Your task to perform on an android device: Open CNN.com Image 0: 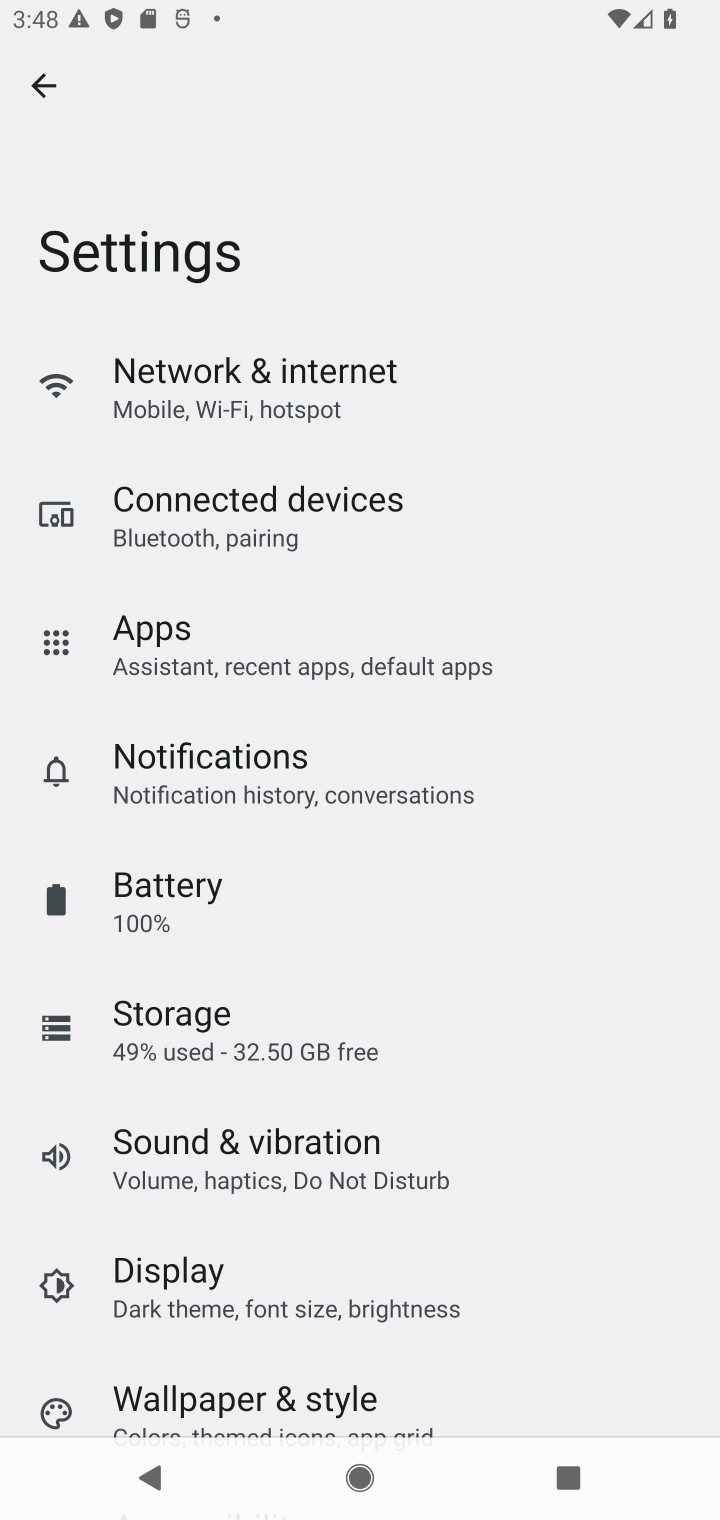
Step 0: press home button
Your task to perform on an android device: Open CNN.com Image 1: 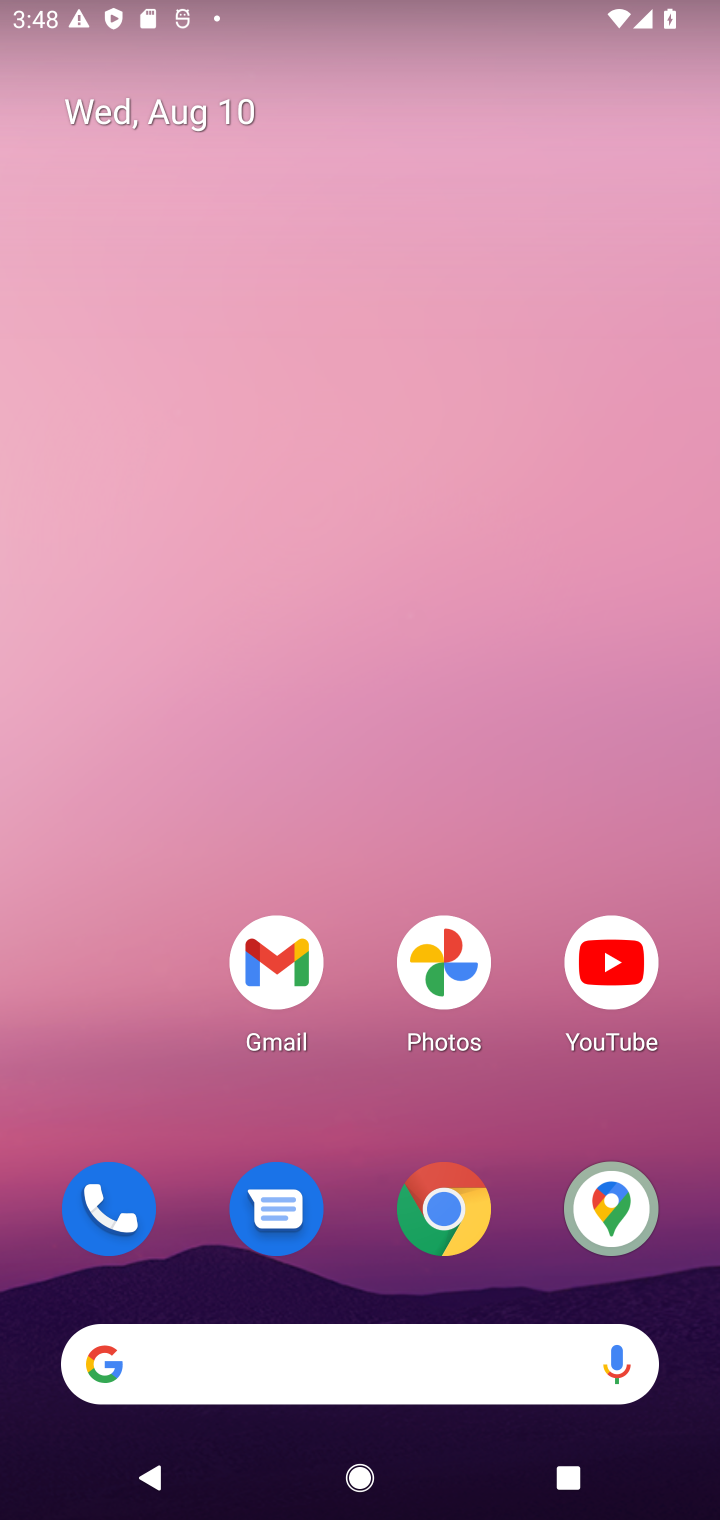
Step 1: click (407, 1345)
Your task to perform on an android device: Open CNN.com Image 2: 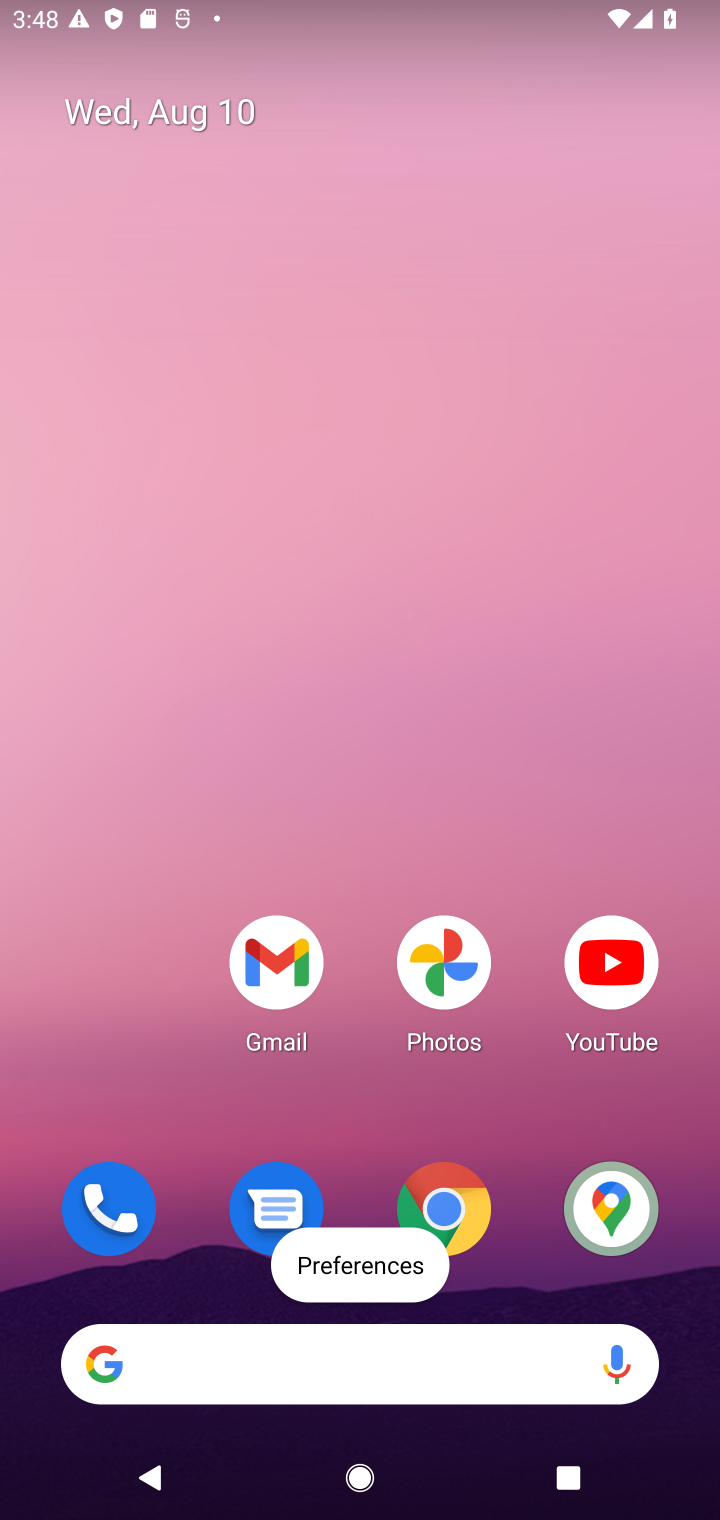
Step 2: click (407, 1345)
Your task to perform on an android device: Open CNN.com Image 3: 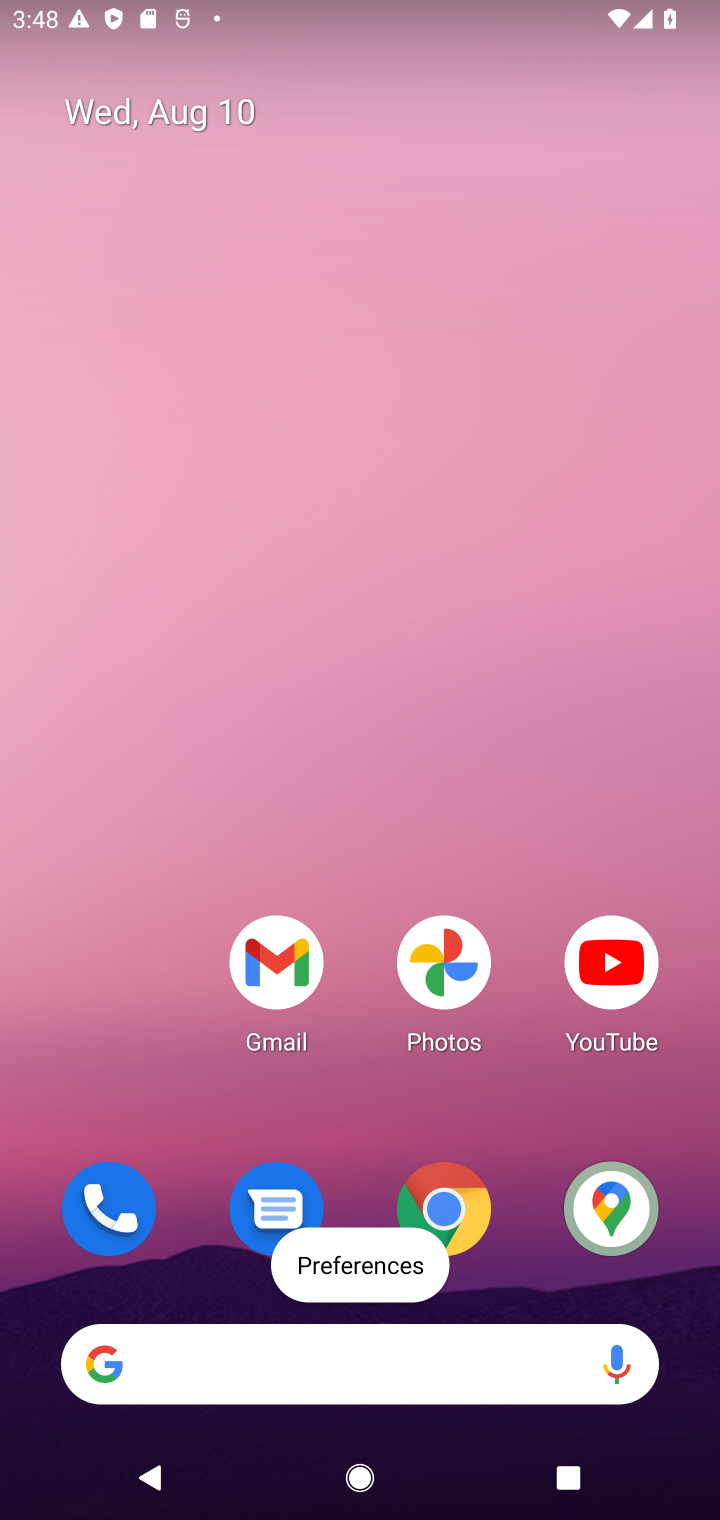
Step 3: click (300, 1388)
Your task to perform on an android device: Open CNN.com Image 4: 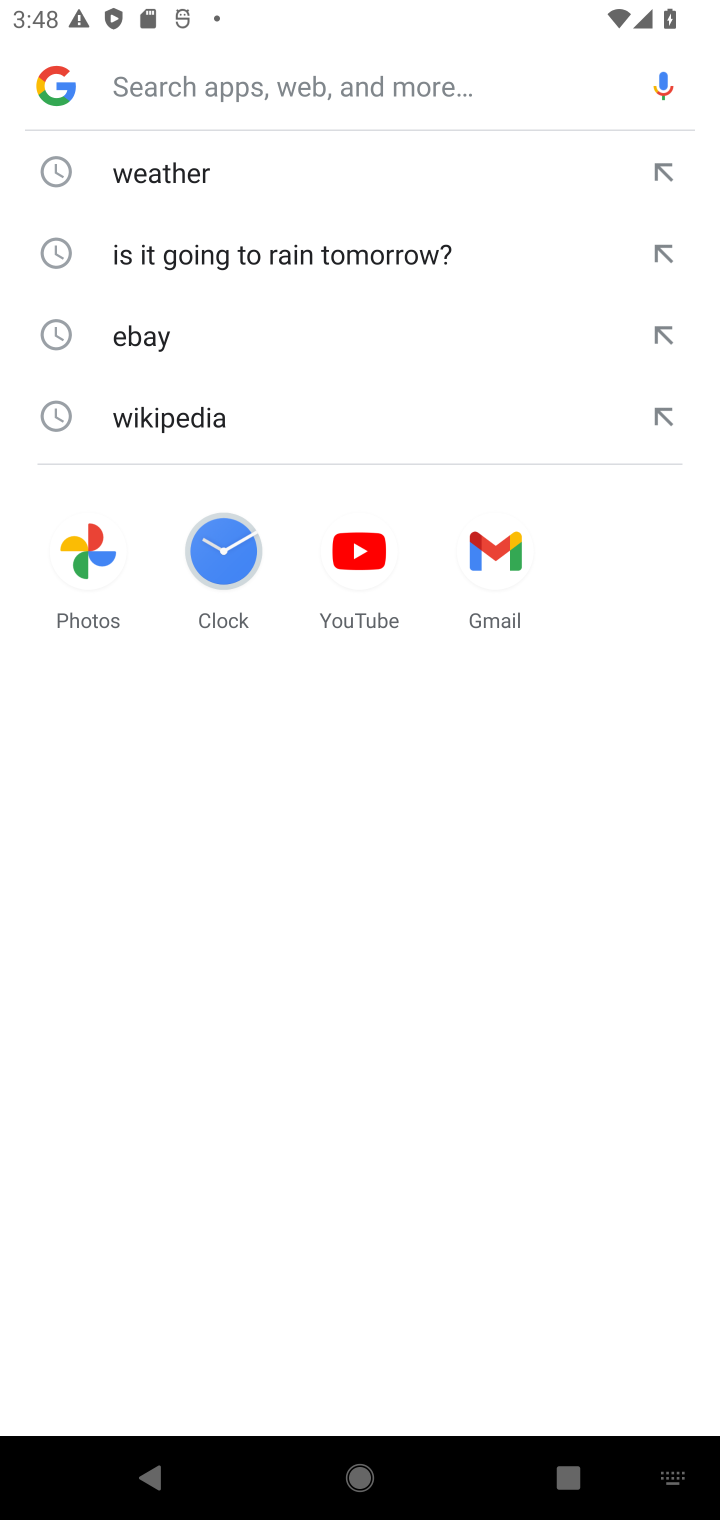
Step 4: click (268, 102)
Your task to perform on an android device: Open CNN.com Image 5: 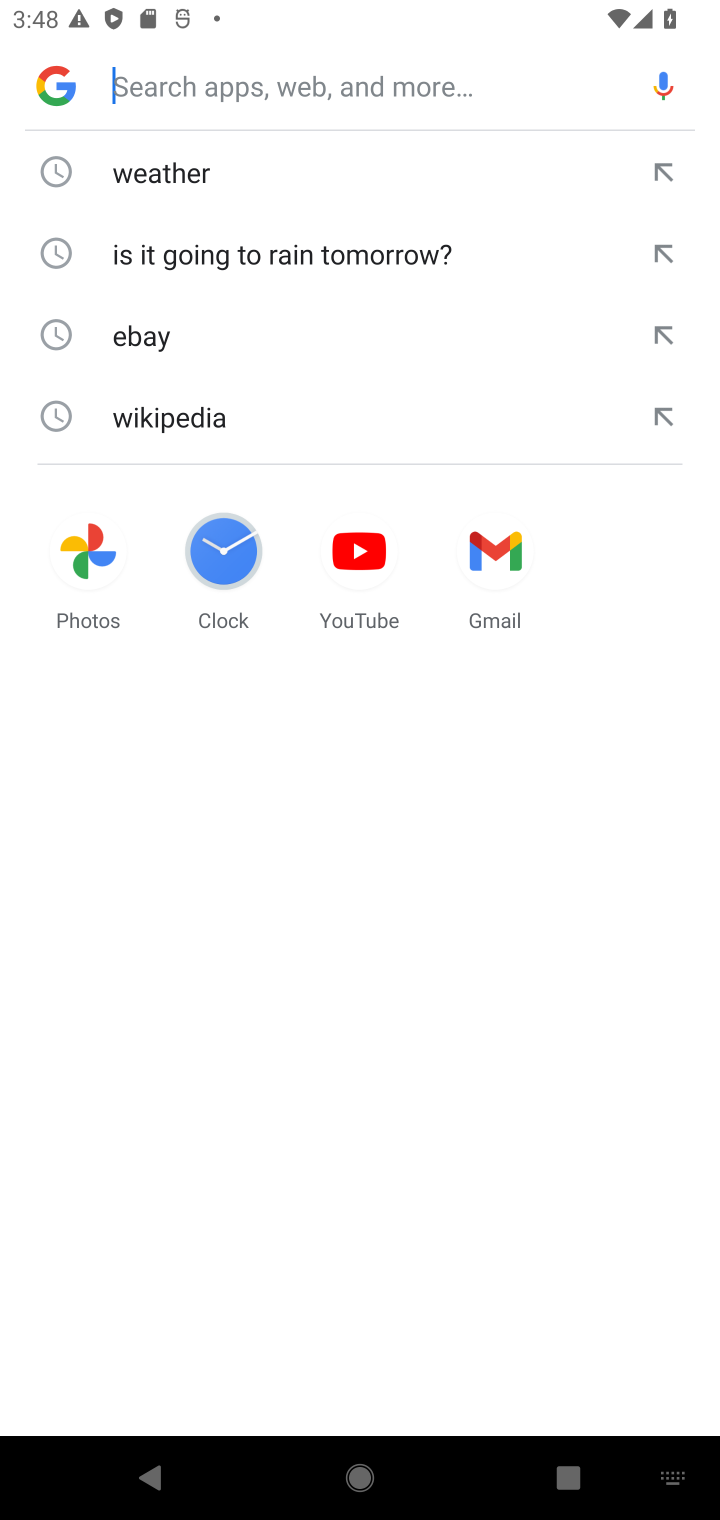
Step 5: type "cnn"
Your task to perform on an android device: Open CNN.com Image 6: 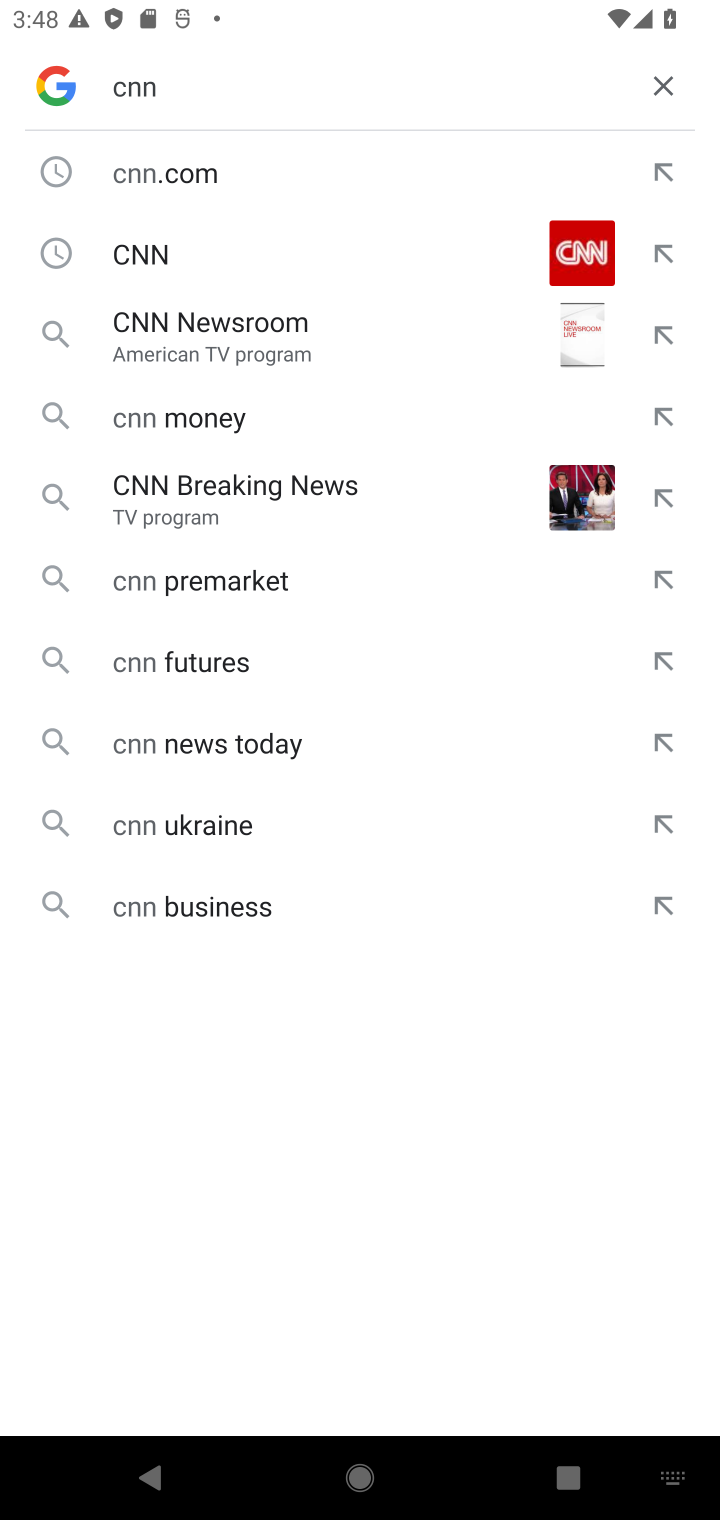
Step 6: click (205, 264)
Your task to perform on an android device: Open CNN.com Image 7: 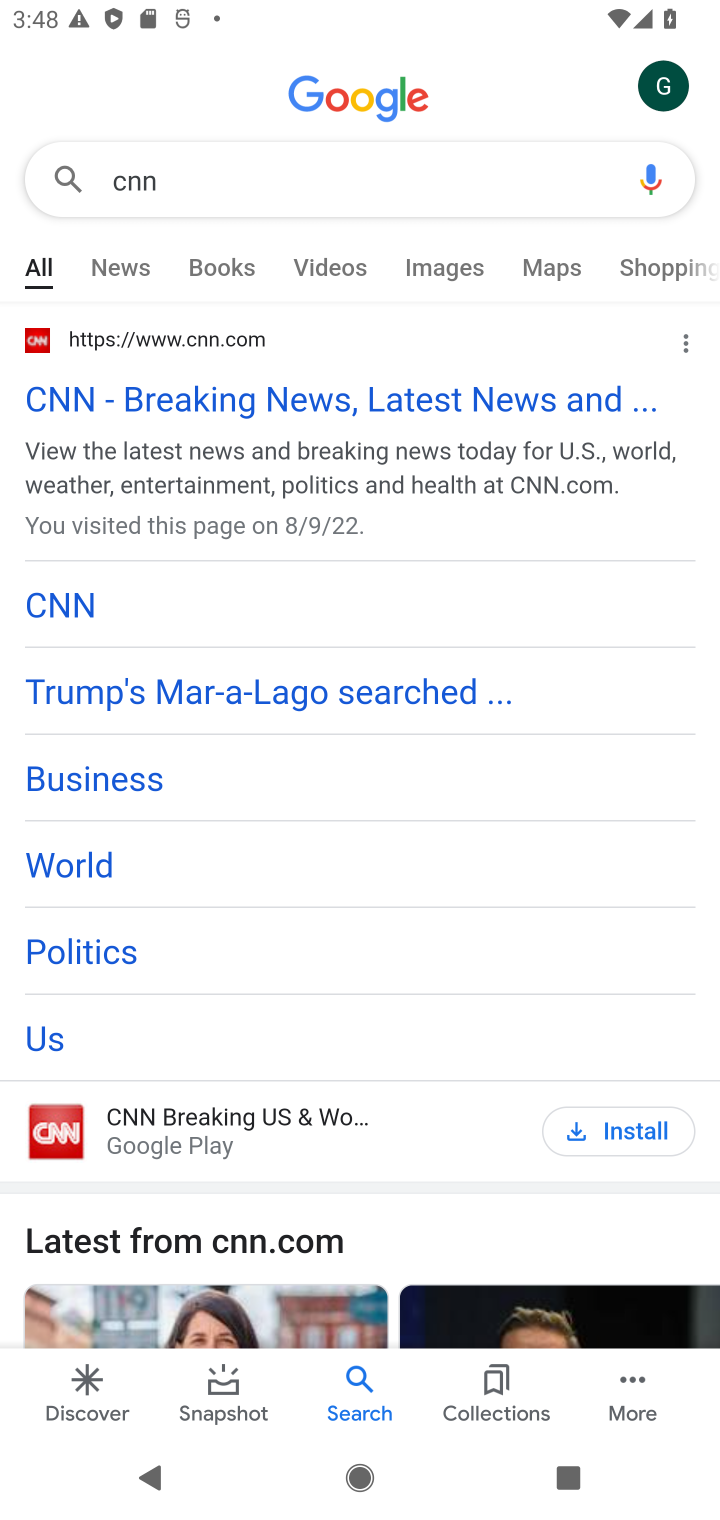
Step 7: click (120, 413)
Your task to perform on an android device: Open CNN.com Image 8: 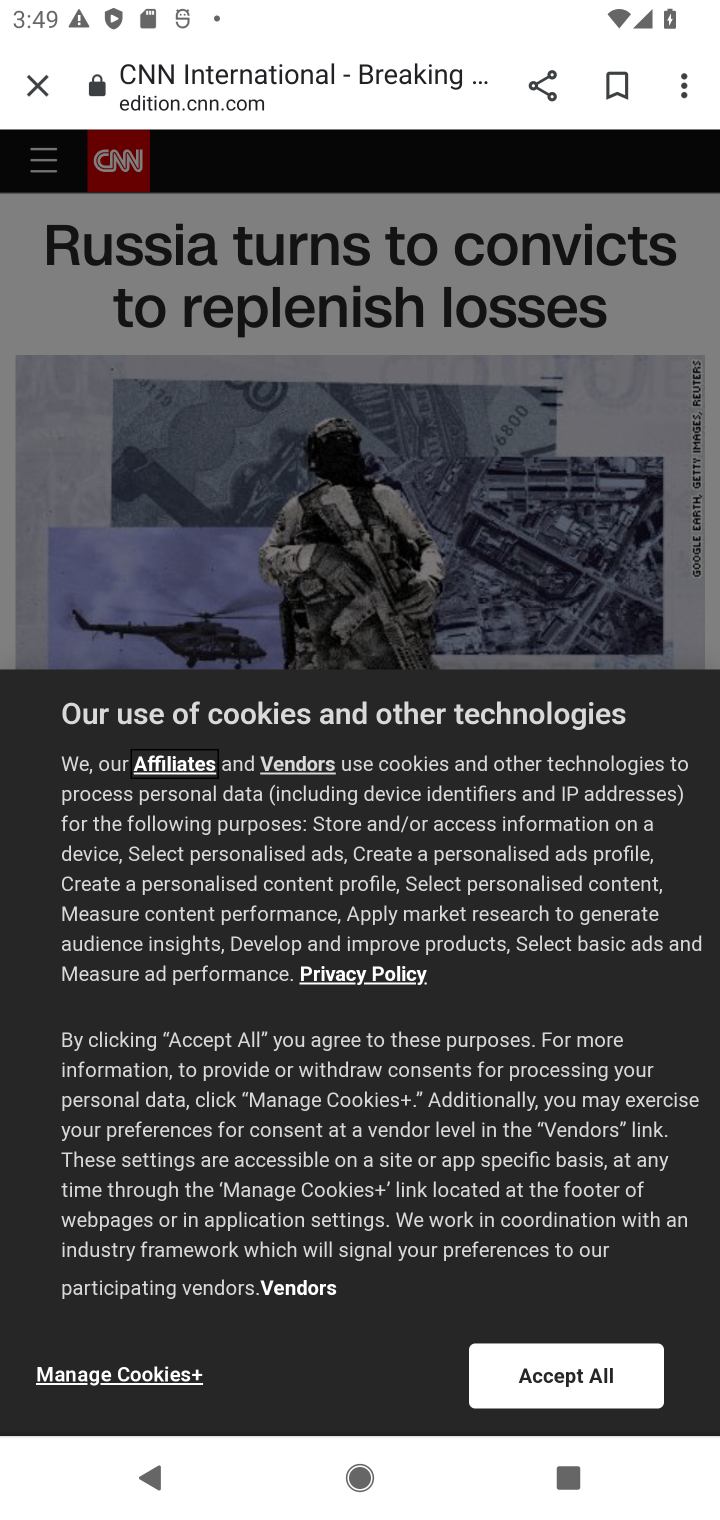
Step 8: task complete